Your task to perform on an android device: Do I have any events this weekend? Image 0: 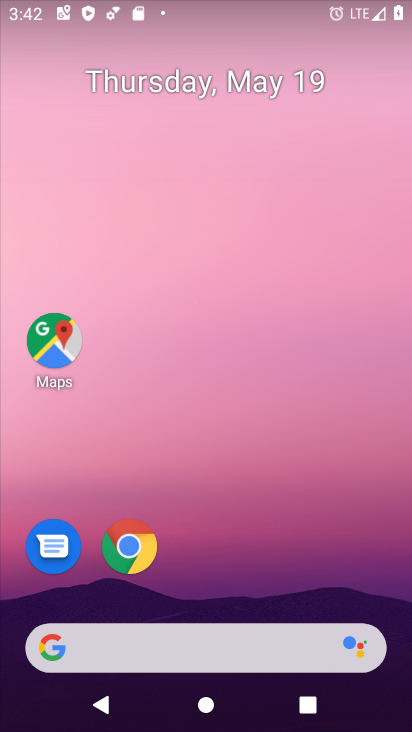
Step 0: drag from (223, 600) to (217, 54)
Your task to perform on an android device: Do I have any events this weekend? Image 1: 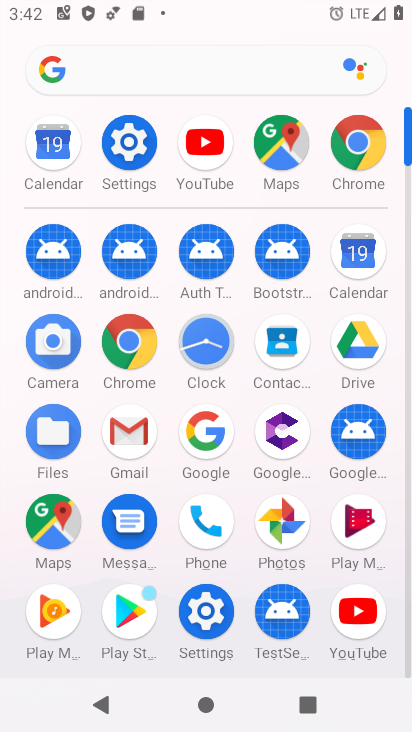
Step 1: click (354, 261)
Your task to perform on an android device: Do I have any events this weekend? Image 2: 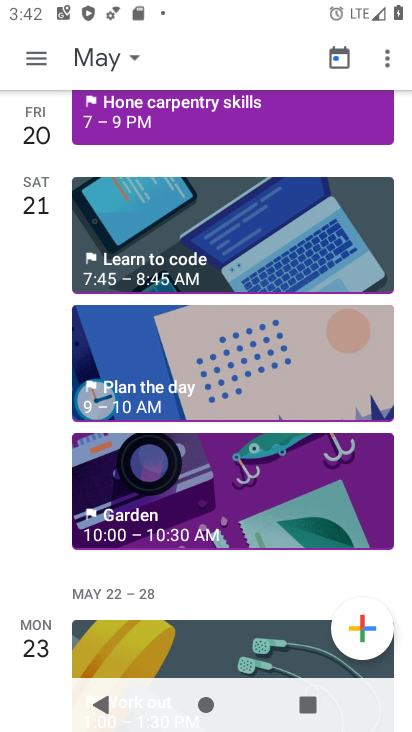
Step 2: task complete